Your task to perform on an android device: Go to Android settings Image 0: 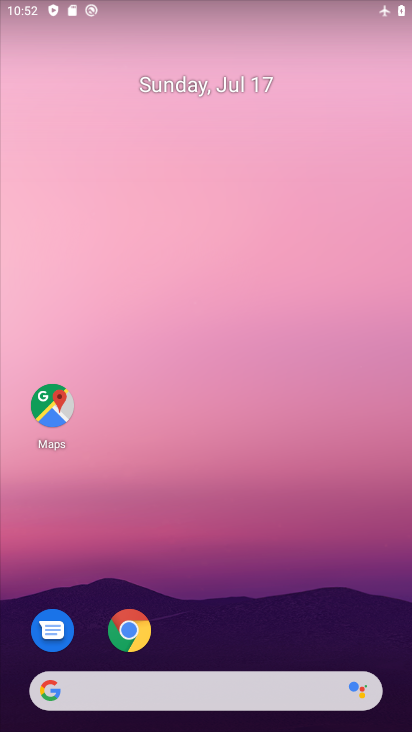
Step 0: drag from (191, 650) to (239, 39)
Your task to perform on an android device: Go to Android settings Image 1: 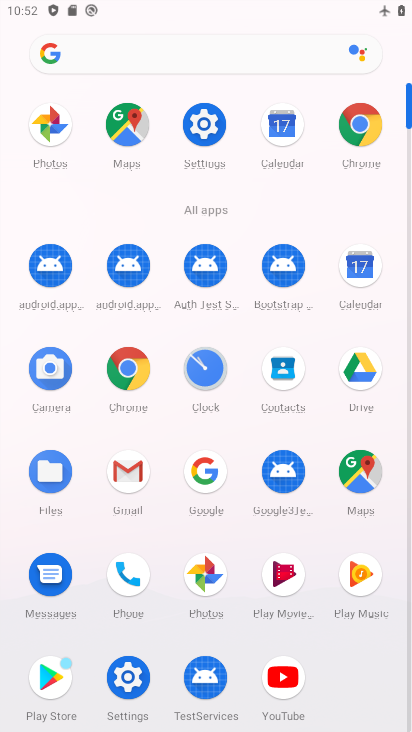
Step 1: click (138, 681)
Your task to perform on an android device: Go to Android settings Image 2: 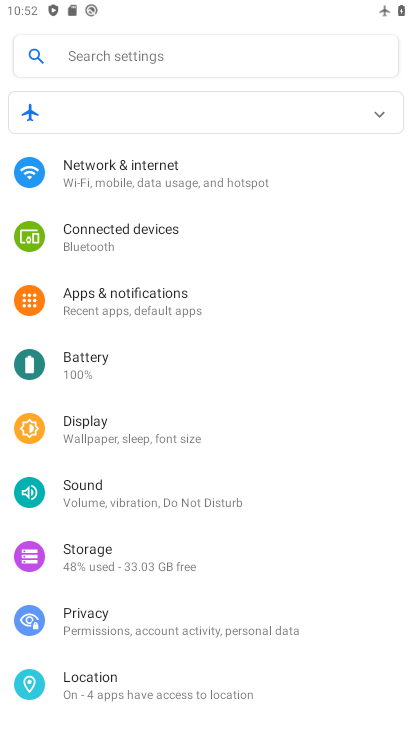
Step 2: click (121, 183)
Your task to perform on an android device: Go to Android settings Image 3: 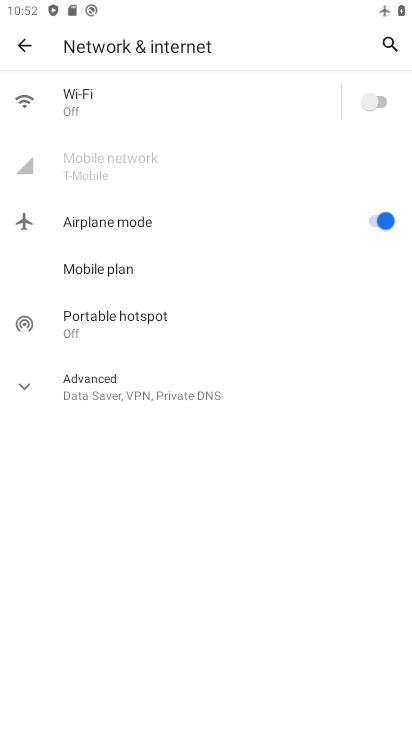
Step 3: click (107, 388)
Your task to perform on an android device: Go to Android settings Image 4: 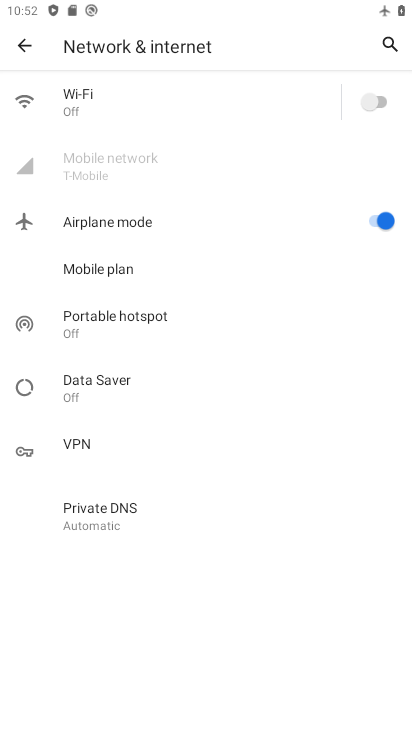
Step 4: task complete